Your task to perform on an android device: toggle show notifications on the lock screen Image 0: 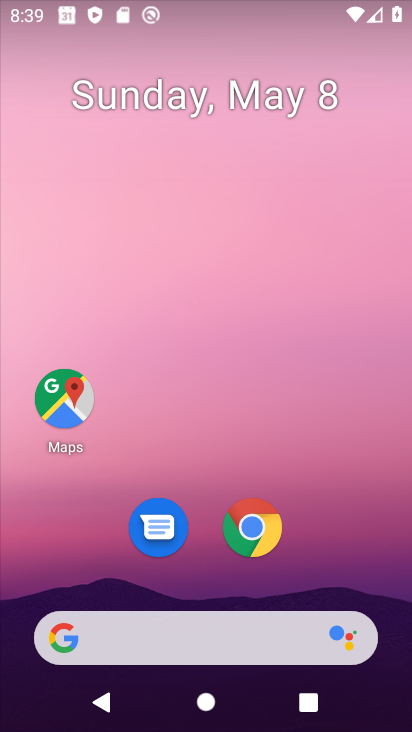
Step 0: drag from (191, 562) to (195, 83)
Your task to perform on an android device: toggle show notifications on the lock screen Image 1: 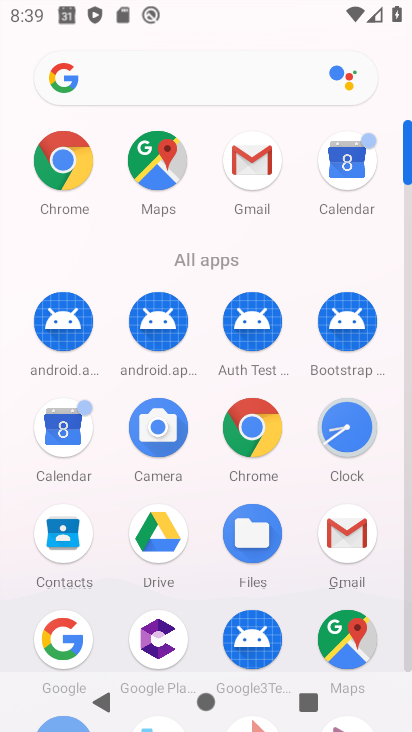
Step 1: drag from (193, 493) to (178, 109)
Your task to perform on an android device: toggle show notifications on the lock screen Image 2: 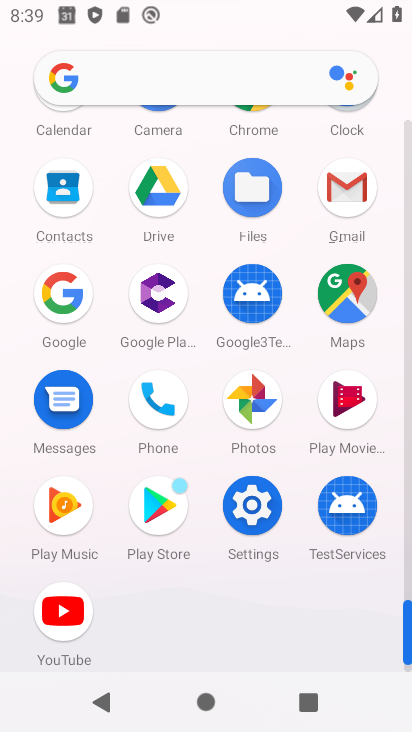
Step 2: click (246, 508)
Your task to perform on an android device: toggle show notifications on the lock screen Image 3: 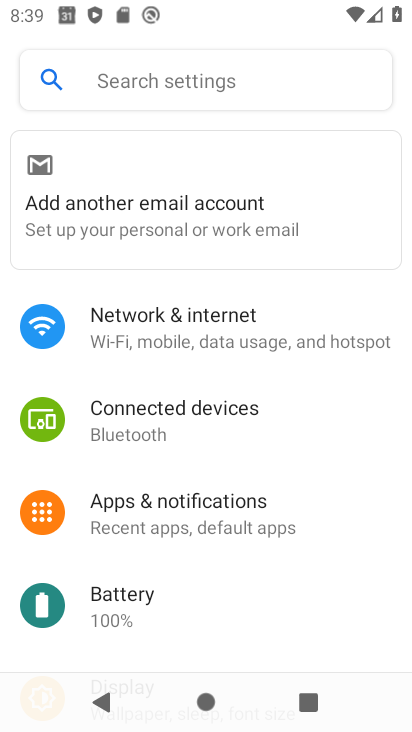
Step 3: click (189, 521)
Your task to perform on an android device: toggle show notifications on the lock screen Image 4: 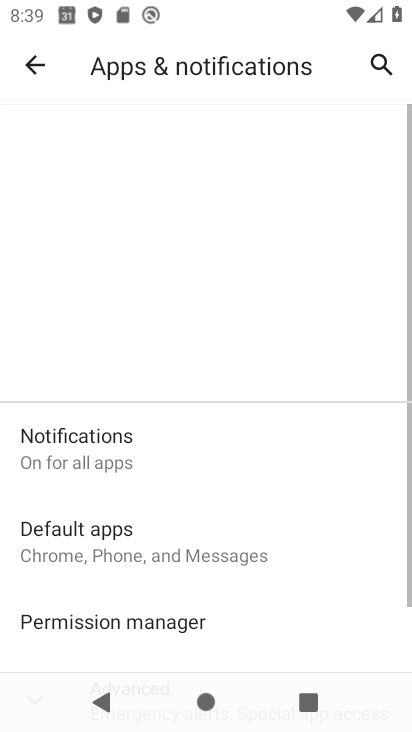
Step 4: click (105, 444)
Your task to perform on an android device: toggle show notifications on the lock screen Image 5: 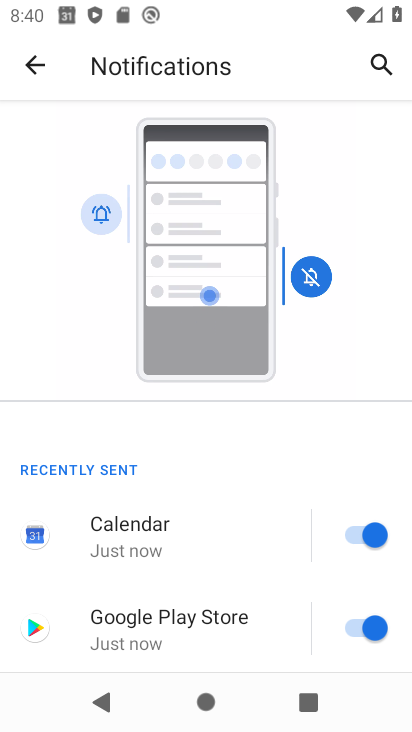
Step 5: drag from (207, 570) to (299, 40)
Your task to perform on an android device: toggle show notifications on the lock screen Image 6: 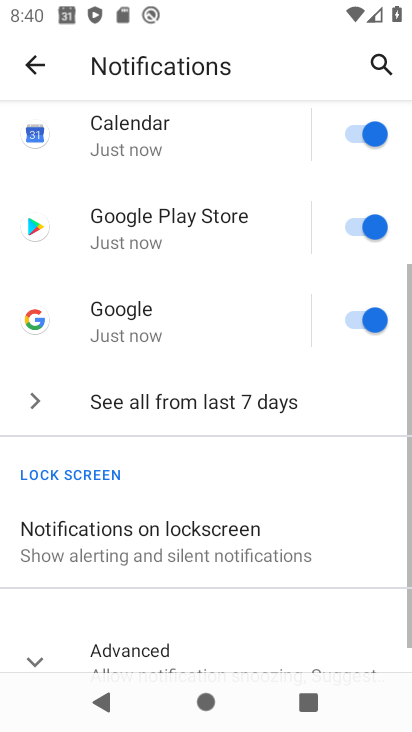
Step 6: click (155, 511)
Your task to perform on an android device: toggle show notifications on the lock screen Image 7: 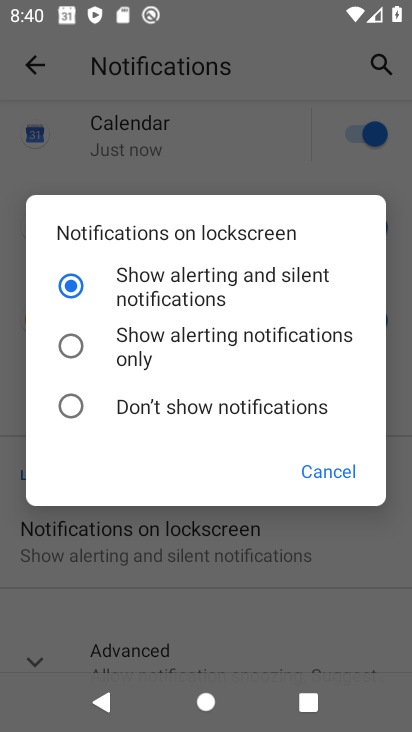
Step 7: click (70, 409)
Your task to perform on an android device: toggle show notifications on the lock screen Image 8: 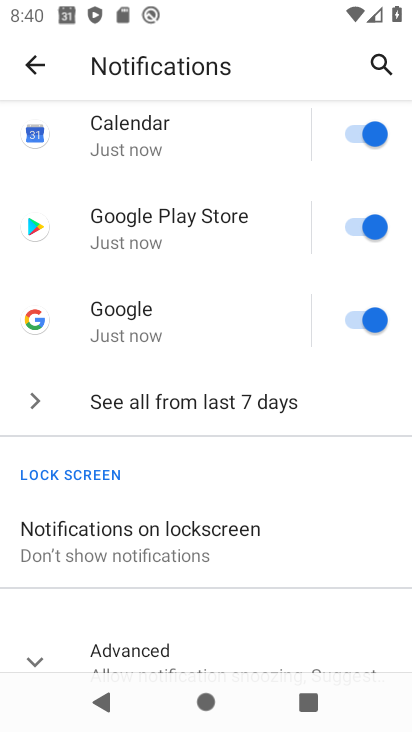
Step 8: task complete